Your task to perform on an android device: Open calendar and show me the first week of next month Image 0: 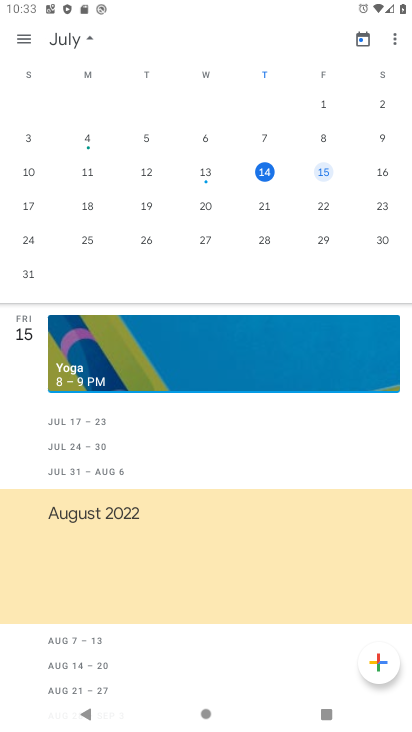
Step 0: drag from (337, 201) to (16, 190)
Your task to perform on an android device: Open calendar and show me the first week of next month Image 1: 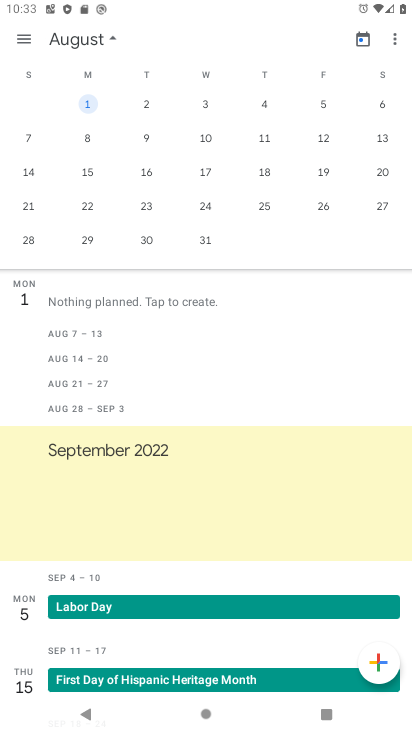
Step 1: click (25, 41)
Your task to perform on an android device: Open calendar and show me the first week of next month Image 2: 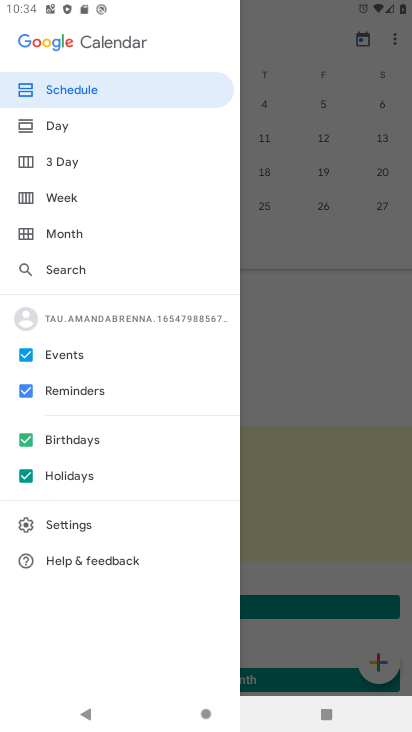
Step 2: click (70, 198)
Your task to perform on an android device: Open calendar and show me the first week of next month Image 3: 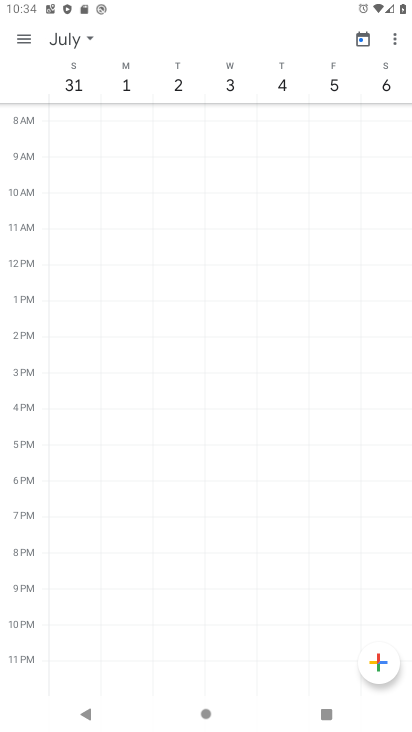
Step 3: task complete